Your task to perform on an android device: Open the phone app and click the voicemail tab. Image 0: 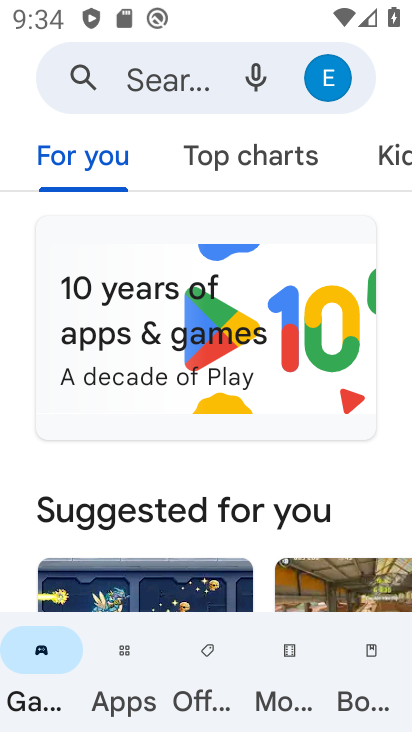
Step 0: press home button
Your task to perform on an android device: Open the phone app and click the voicemail tab. Image 1: 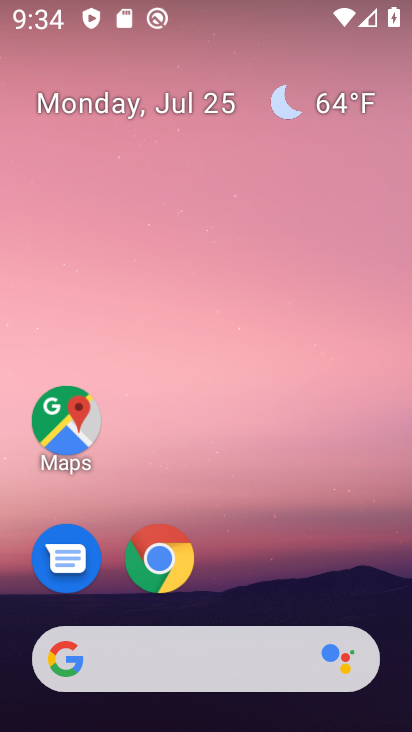
Step 1: drag from (382, 592) to (368, 254)
Your task to perform on an android device: Open the phone app and click the voicemail tab. Image 2: 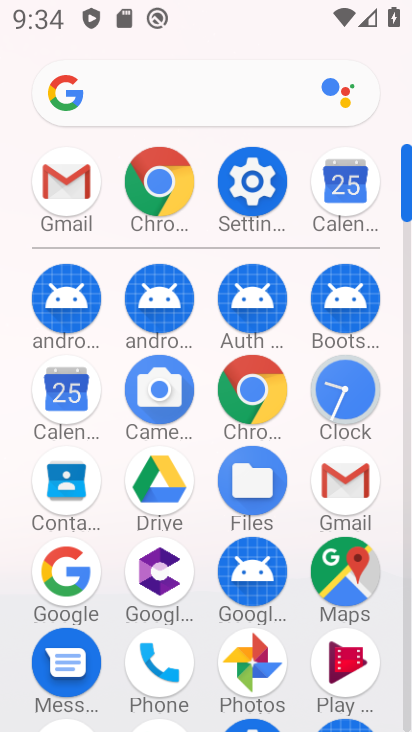
Step 2: click (159, 674)
Your task to perform on an android device: Open the phone app and click the voicemail tab. Image 3: 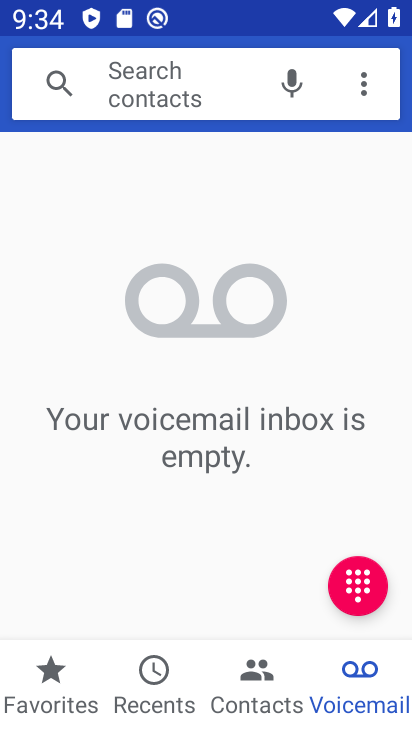
Step 3: task complete